Your task to perform on an android device: turn vacation reply on in the gmail app Image 0: 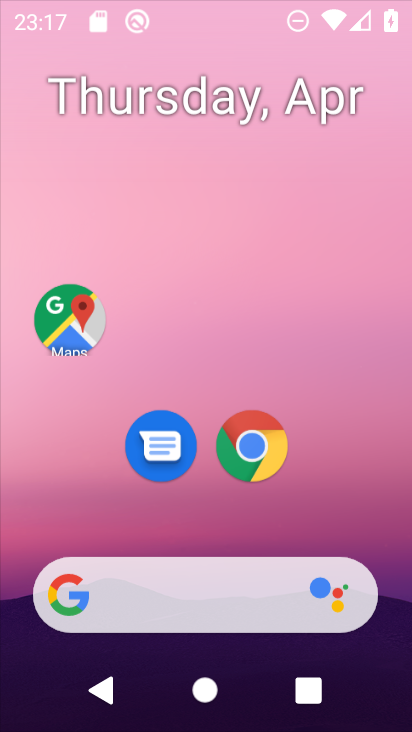
Step 0: click (249, 121)
Your task to perform on an android device: turn vacation reply on in the gmail app Image 1: 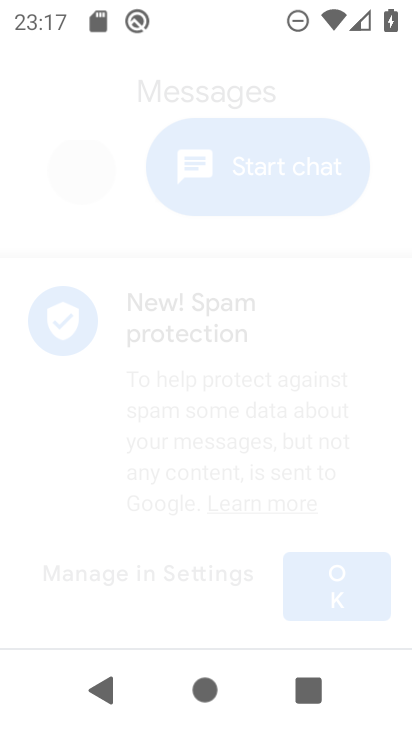
Step 1: drag from (238, 469) to (258, 116)
Your task to perform on an android device: turn vacation reply on in the gmail app Image 2: 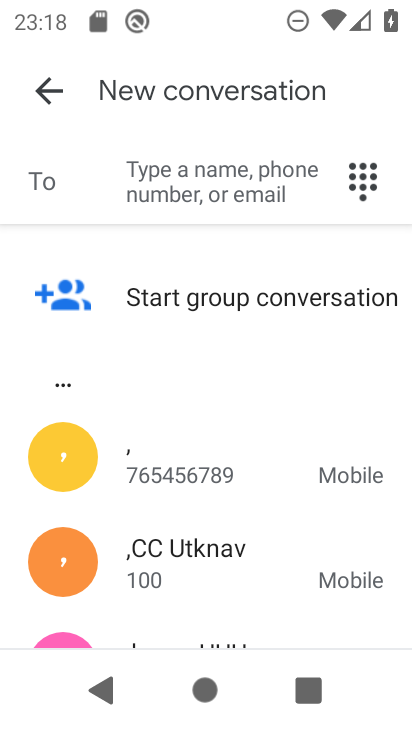
Step 2: press home button
Your task to perform on an android device: turn vacation reply on in the gmail app Image 3: 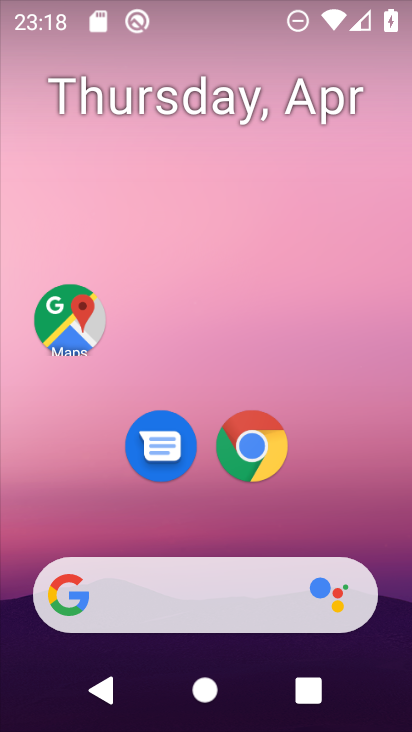
Step 3: drag from (219, 417) to (218, 158)
Your task to perform on an android device: turn vacation reply on in the gmail app Image 4: 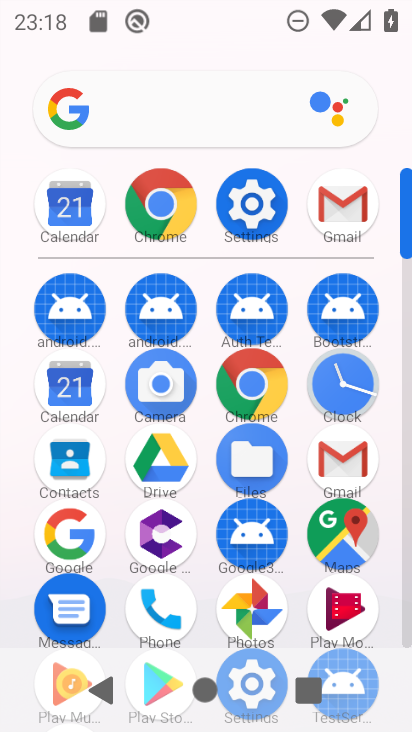
Step 4: click (346, 209)
Your task to perform on an android device: turn vacation reply on in the gmail app Image 5: 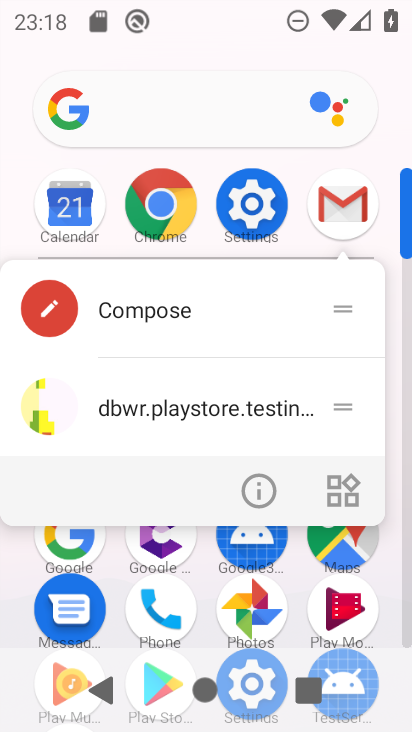
Step 5: click (260, 474)
Your task to perform on an android device: turn vacation reply on in the gmail app Image 6: 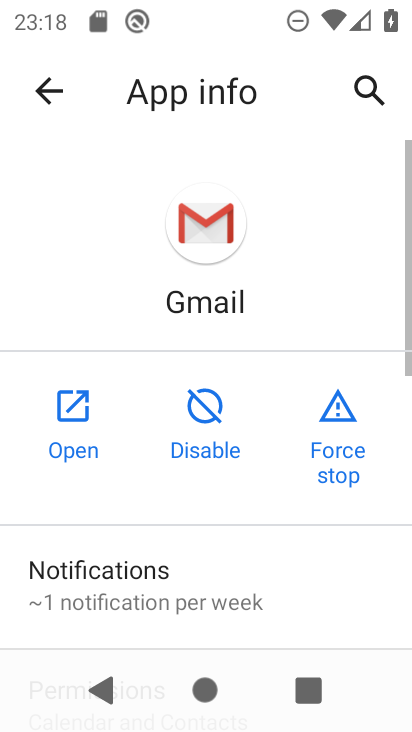
Step 6: click (71, 436)
Your task to perform on an android device: turn vacation reply on in the gmail app Image 7: 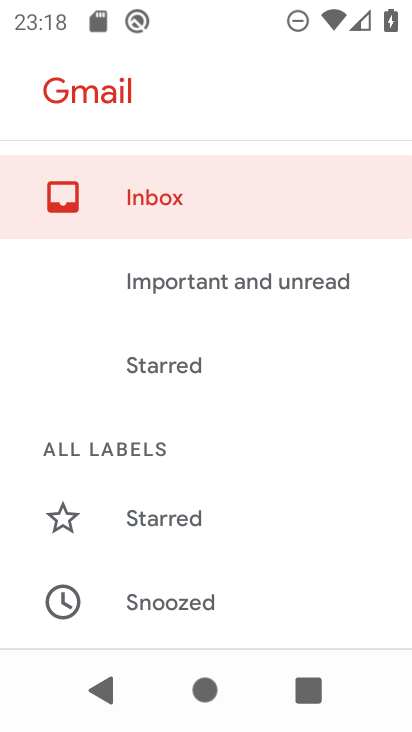
Step 7: drag from (192, 588) to (201, 165)
Your task to perform on an android device: turn vacation reply on in the gmail app Image 8: 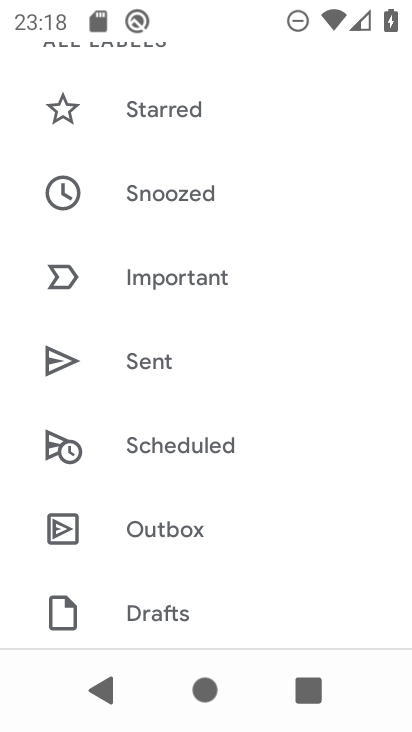
Step 8: drag from (225, 511) to (248, 250)
Your task to perform on an android device: turn vacation reply on in the gmail app Image 9: 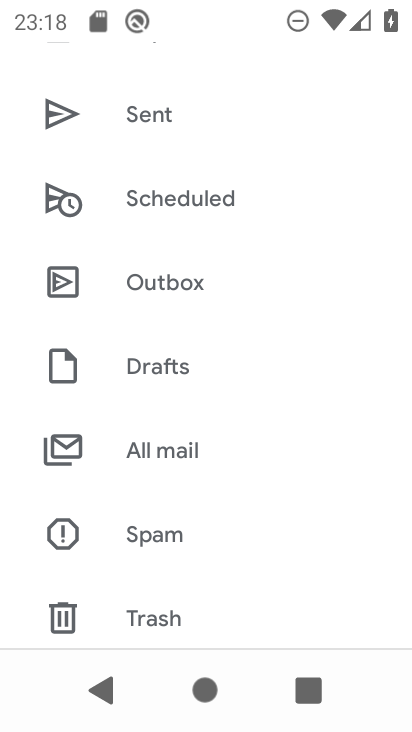
Step 9: drag from (212, 515) to (250, 120)
Your task to perform on an android device: turn vacation reply on in the gmail app Image 10: 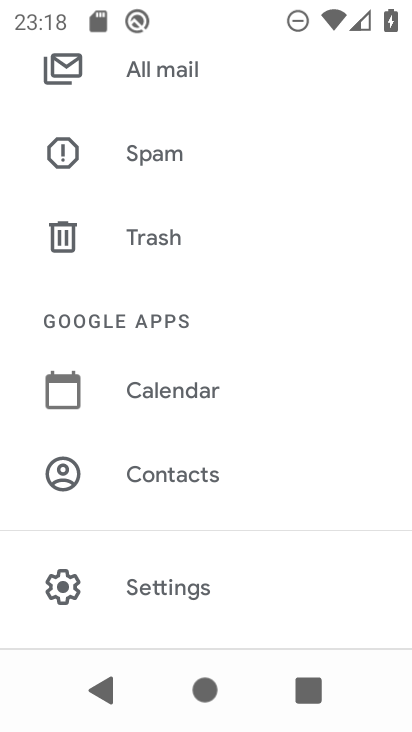
Step 10: click (177, 584)
Your task to perform on an android device: turn vacation reply on in the gmail app Image 11: 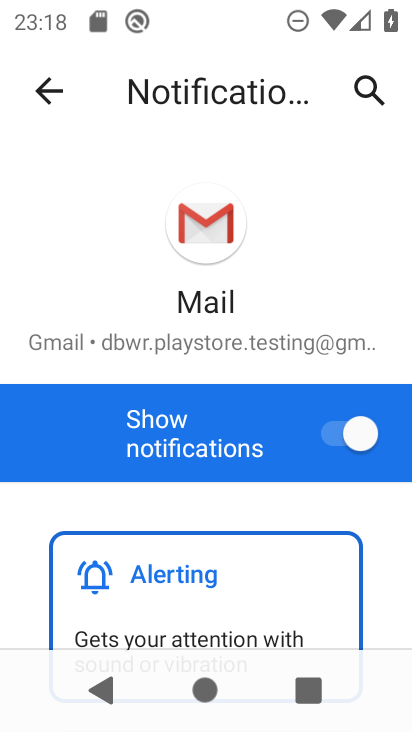
Step 11: drag from (290, 513) to (317, 294)
Your task to perform on an android device: turn vacation reply on in the gmail app Image 12: 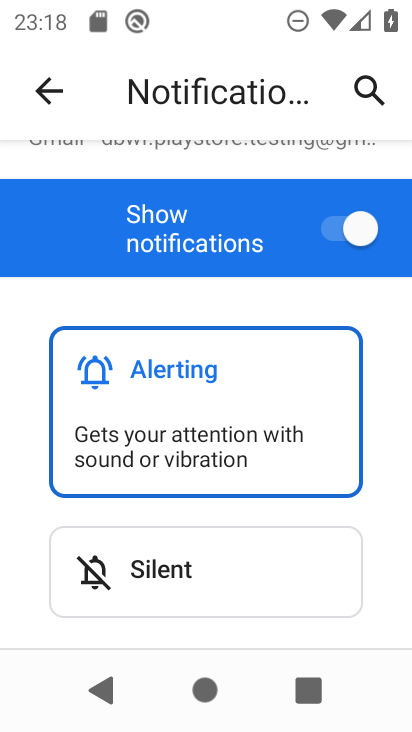
Step 12: drag from (231, 548) to (368, 0)
Your task to perform on an android device: turn vacation reply on in the gmail app Image 13: 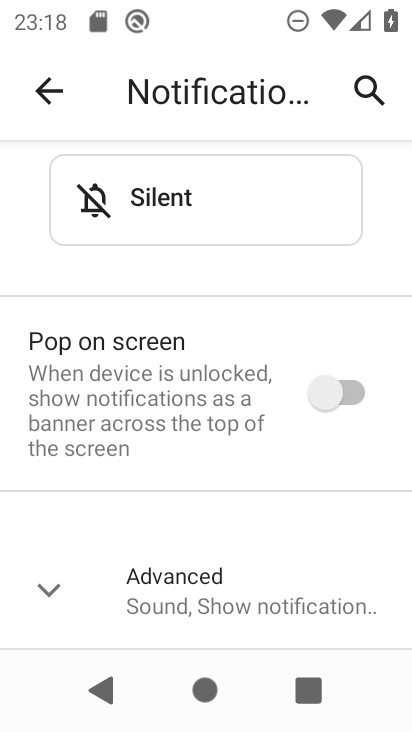
Step 13: click (41, 91)
Your task to perform on an android device: turn vacation reply on in the gmail app Image 14: 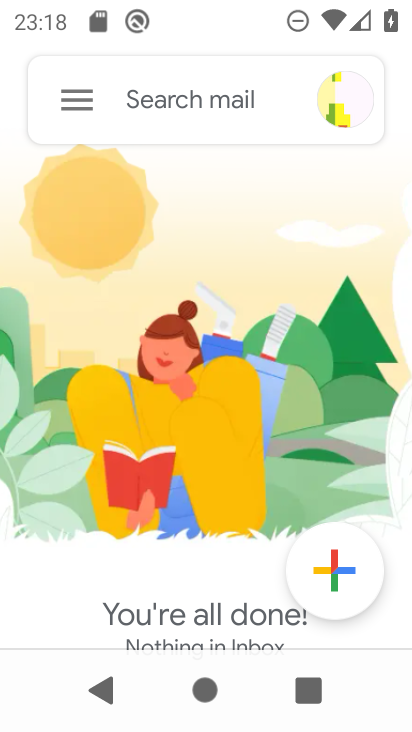
Step 14: click (65, 115)
Your task to perform on an android device: turn vacation reply on in the gmail app Image 15: 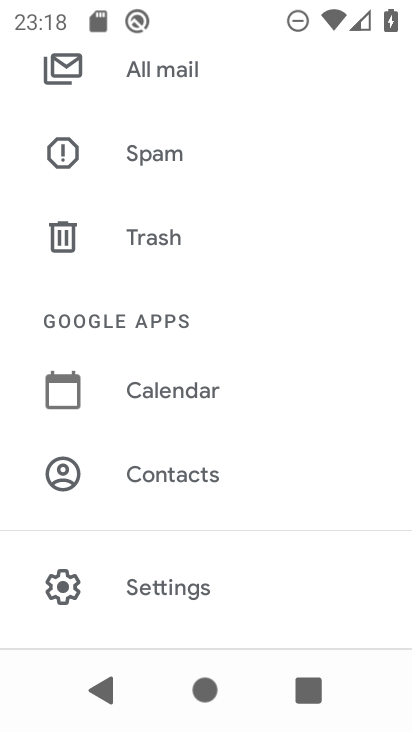
Step 15: click (160, 581)
Your task to perform on an android device: turn vacation reply on in the gmail app Image 16: 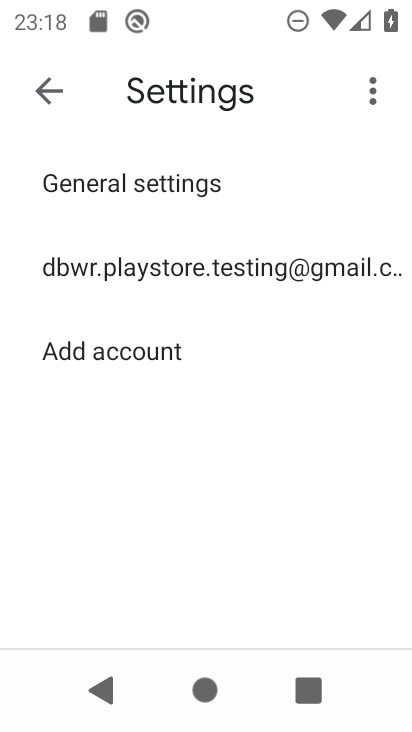
Step 16: click (201, 261)
Your task to perform on an android device: turn vacation reply on in the gmail app Image 17: 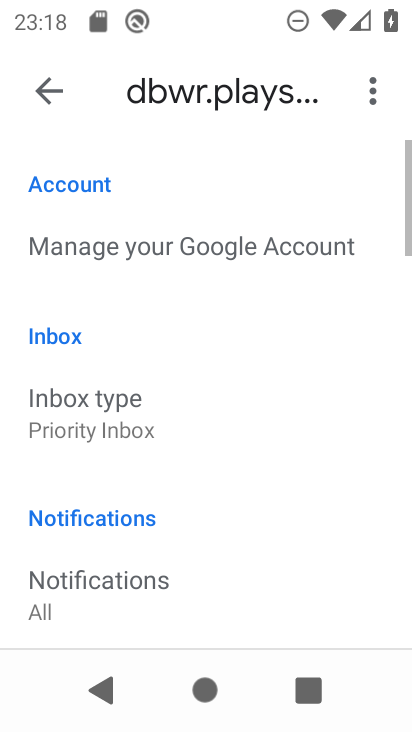
Step 17: drag from (202, 549) to (231, 173)
Your task to perform on an android device: turn vacation reply on in the gmail app Image 18: 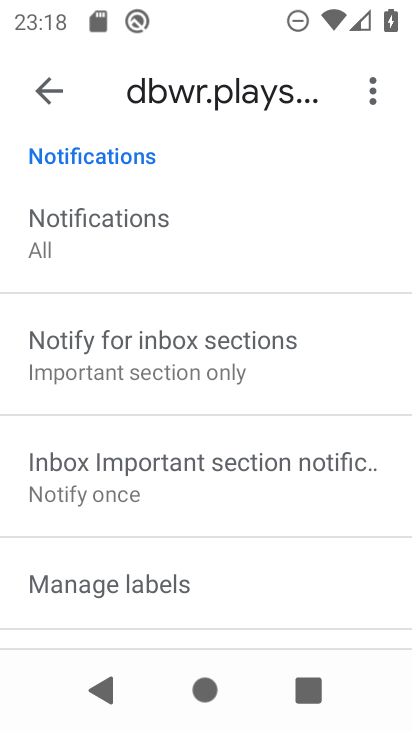
Step 18: drag from (188, 554) to (244, 81)
Your task to perform on an android device: turn vacation reply on in the gmail app Image 19: 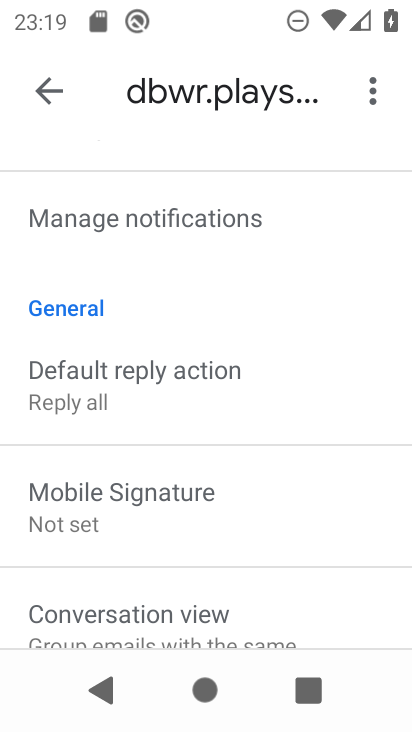
Step 19: drag from (193, 499) to (258, 147)
Your task to perform on an android device: turn vacation reply on in the gmail app Image 20: 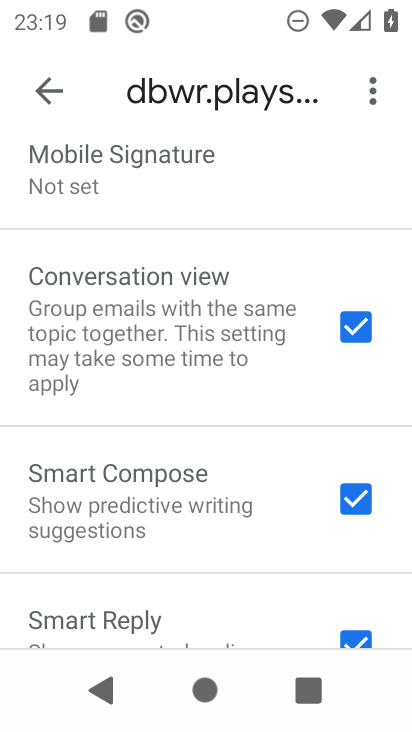
Step 20: drag from (152, 623) to (248, 235)
Your task to perform on an android device: turn vacation reply on in the gmail app Image 21: 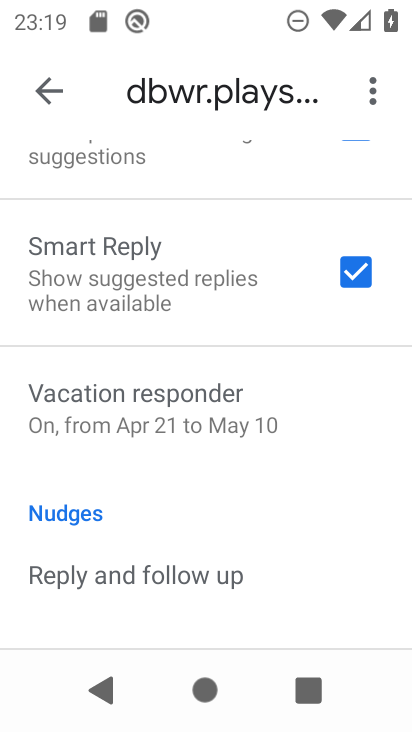
Step 21: drag from (192, 575) to (218, 340)
Your task to perform on an android device: turn vacation reply on in the gmail app Image 22: 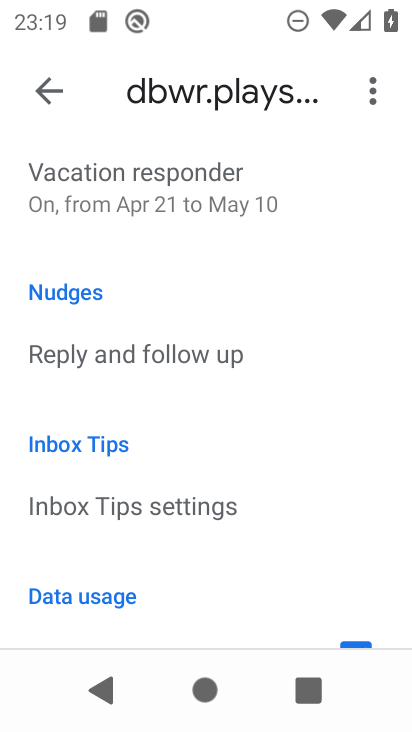
Step 22: drag from (208, 202) to (208, 434)
Your task to perform on an android device: turn vacation reply on in the gmail app Image 23: 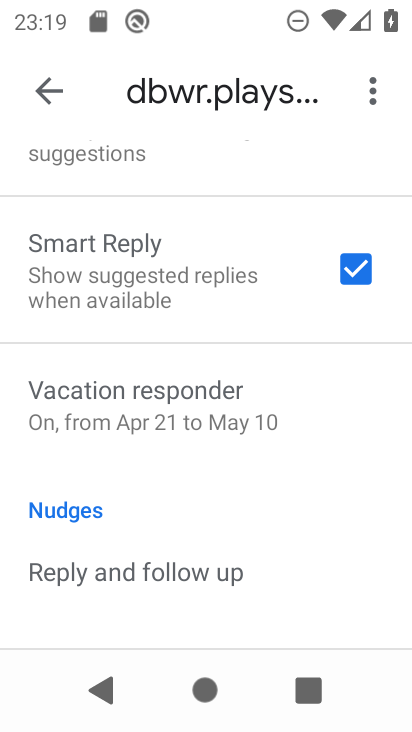
Step 23: click (181, 402)
Your task to perform on an android device: turn vacation reply on in the gmail app Image 24: 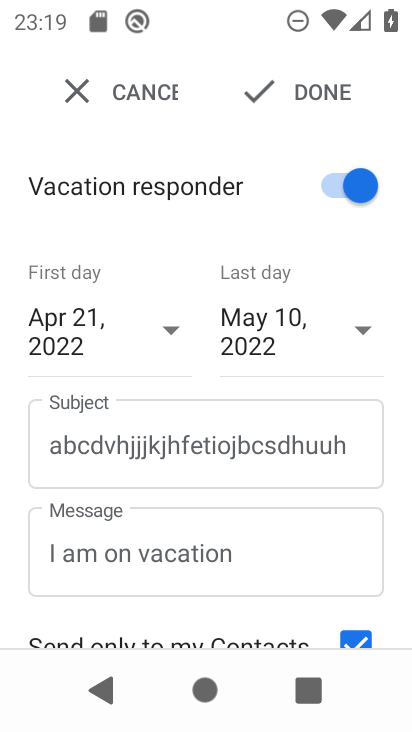
Step 24: click (277, 91)
Your task to perform on an android device: turn vacation reply on in the gmail app Image 25: 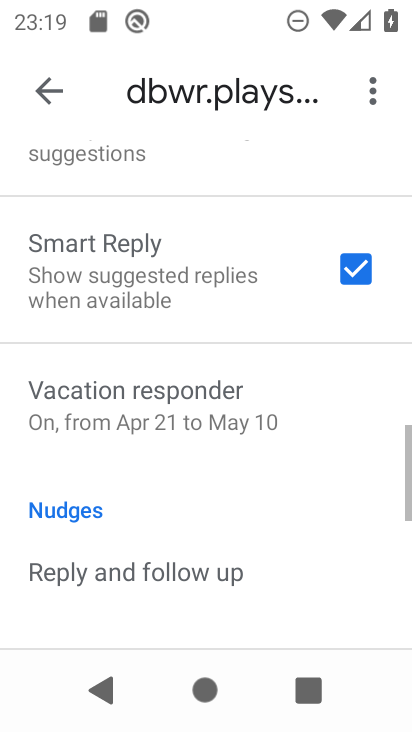
Step 25: task complete